Your task to perform on an android device: What's the weather today? Image 0: 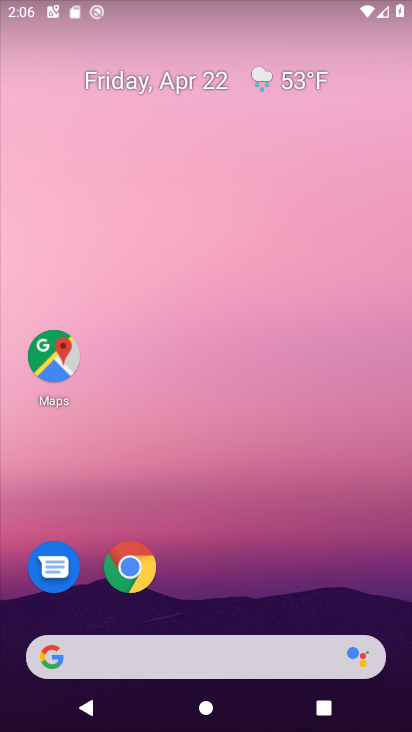
Step 0: click (267, 654)
Your task to perform on an android device: What's the weather today? Image 1: 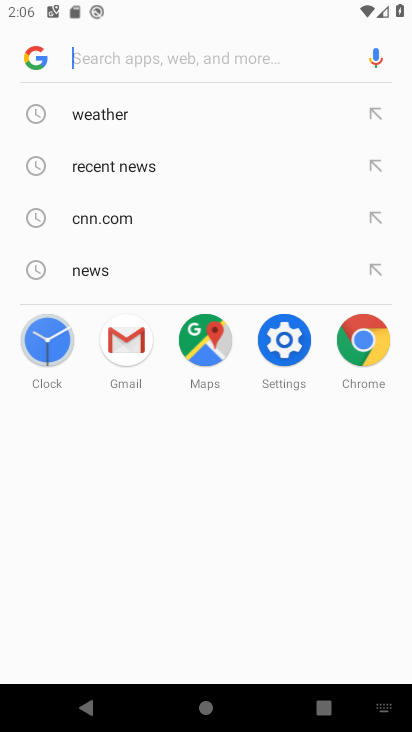
Step 1: click (94, 107)
Your task to perform on an android device: What's the weather today? Image 2: 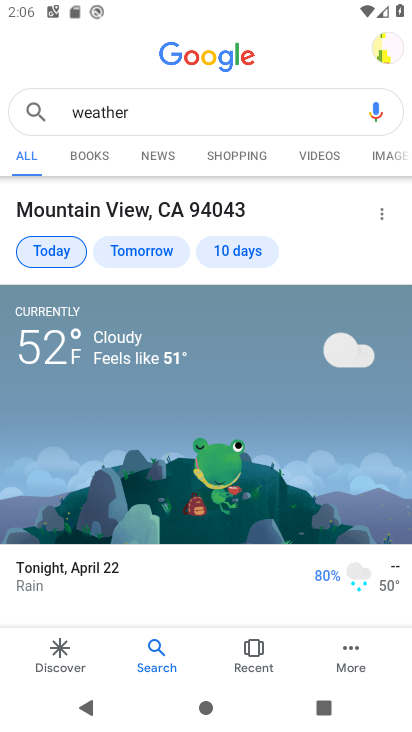
Step 2: task complete